Your task to perform on an android device: Go to Google Image 0: 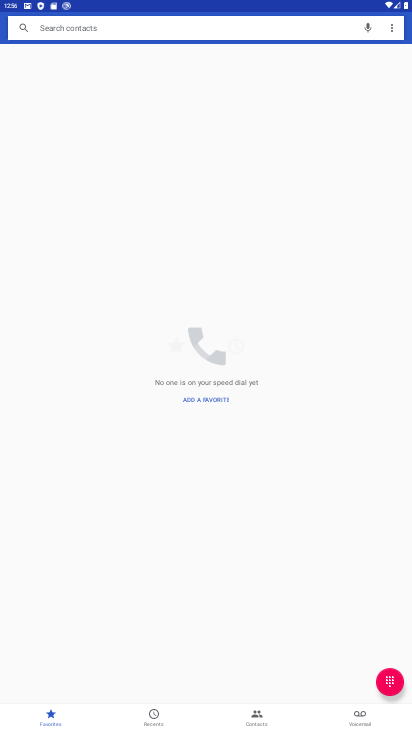
Step 0: press home button
Your task to perform on an android device: Go to Google Image 1: 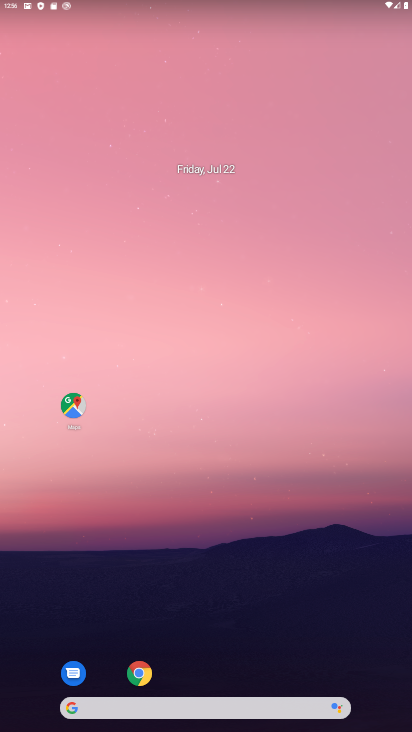
Step 1: drag from (219, 656) to (193, 28)
Your task to perform on an android device: Go to Google Image 2: 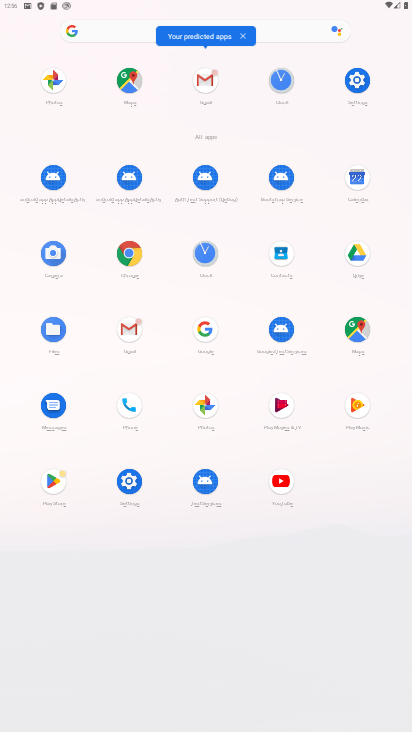
Step 2: click (211, 343)
Your task to perform on an android device: Go to Google Image 3: 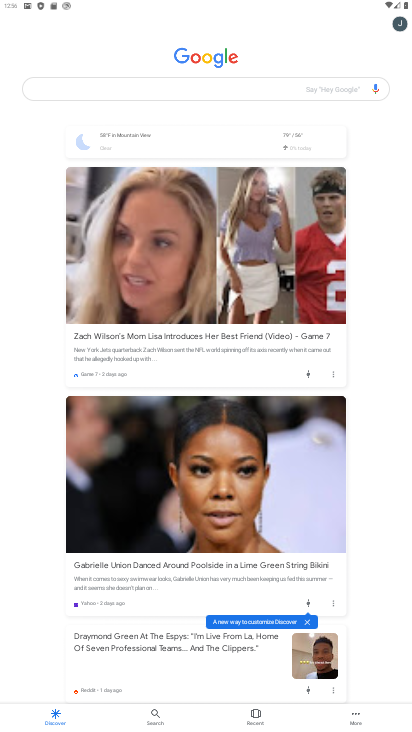
Step 3: task complete